Your task to perform on an android device: find which apps use the phone's location Image 0: 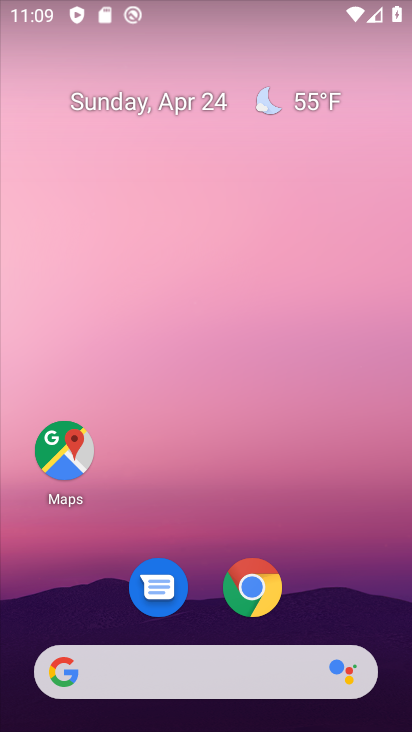
Step 0: drag from (313, 522) to (369, 659)
Your task to perform on an android device: find which apps use the phone's location Image 1: 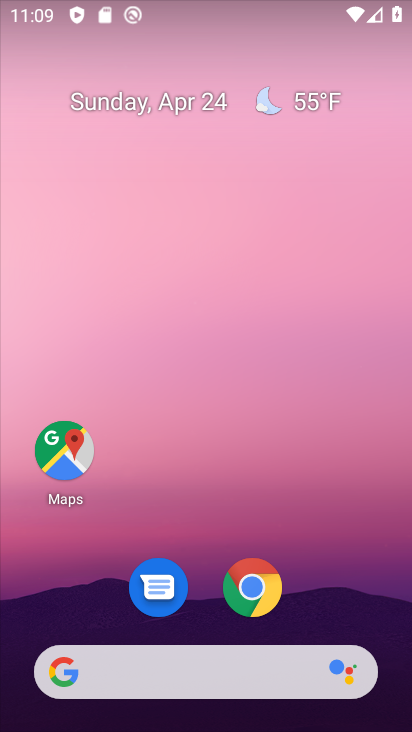
Step 1: drag from (353, 615) to (379, 153)
Your task to perform on an android device: find which apps use the phone's location Image 2: 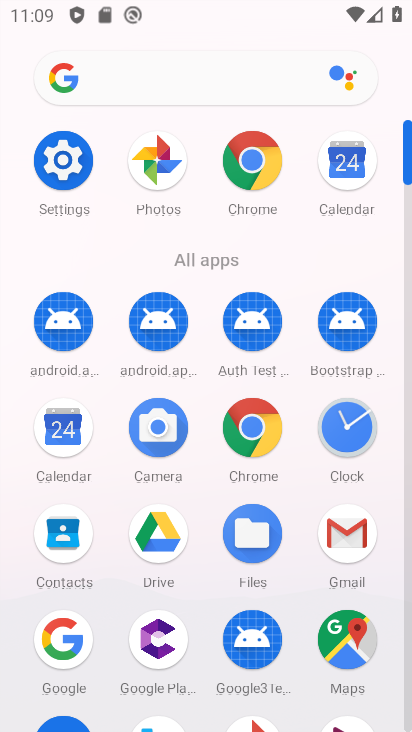
Step 2: click (67, 144)
Your task to perform on an android device: find which apps use the phone's location Image 3: 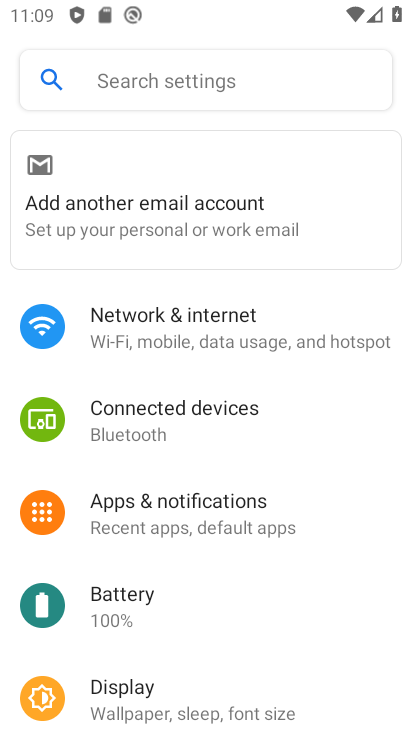
Step 3: drag from (177, 550) to (269, 208)
Your task to perform on an android device: find which apps use the phone's location Image 4: 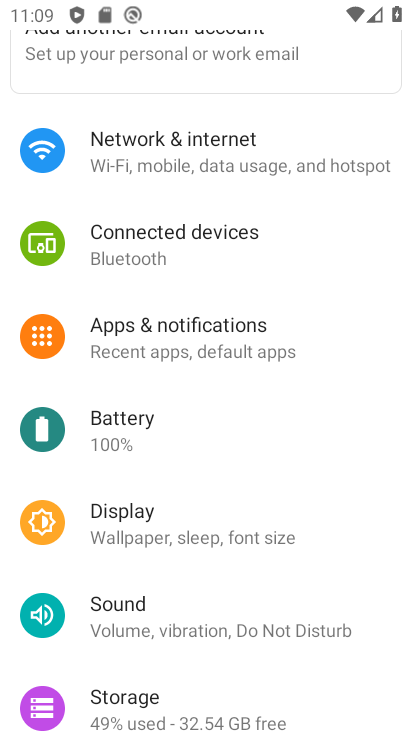
Step 4: drag from (219, 492) to (270, 121)
Your task to perform on an android device: find which apps use the phone's location Image 5: 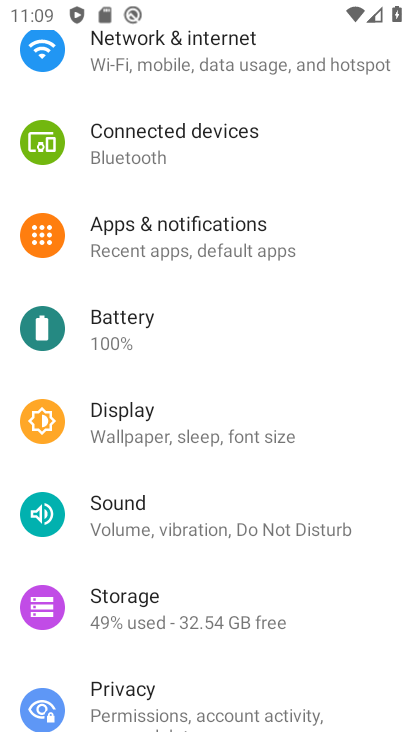
Step 5: drag from (228, 561) to (246, 98)
Your task to perform on an android device: find which apps use the phone's location Image 6: 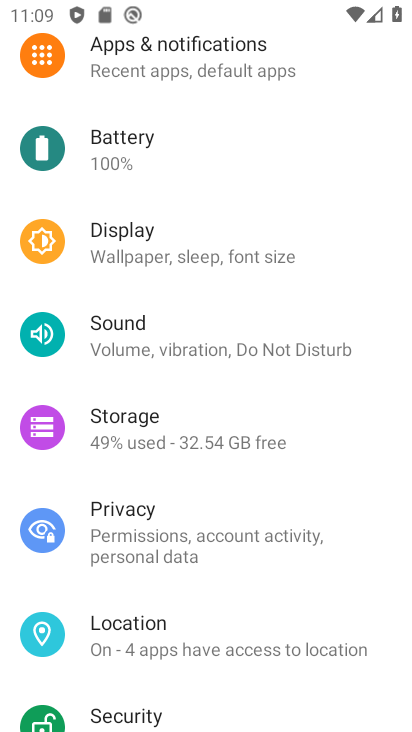
Step 6: drag from (158, 622) to (194, 151)
Your task to perform on an android device: find which apps use the phone's location Image 7: 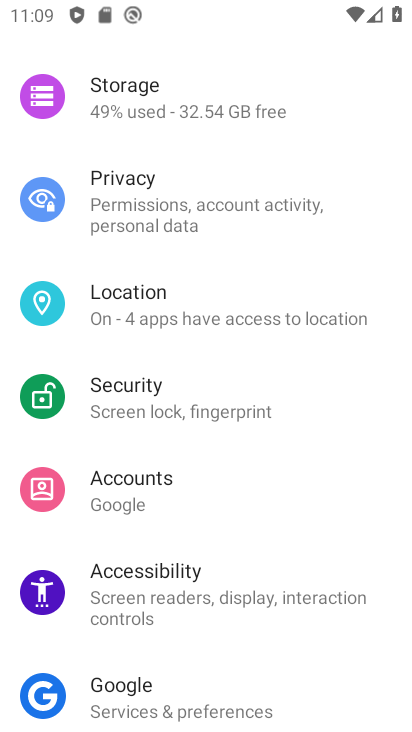
Step 7: click (179, 327)
Your task to perform on an android device: find which apps use the phone's location Image 8: 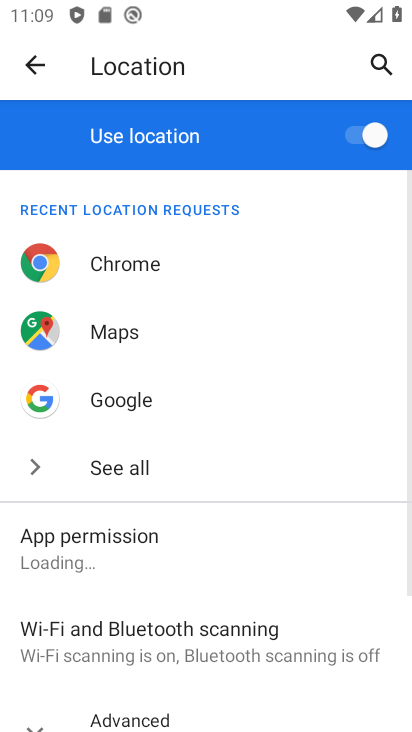
Step 8: drag from (212, 642) to (200, 331)
Your task to perform on an android device: find which apps use the phone's location Image 9: 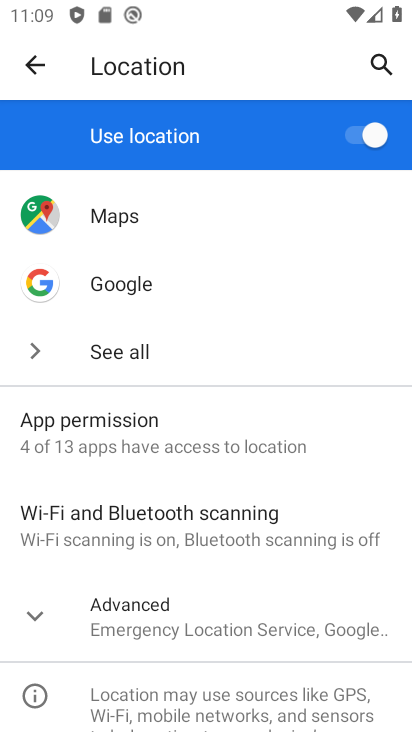
Step 9: drag from (229, 603) to (316, 150)
Your task to perform on an android device: find which apps use the phone's location Image 10: 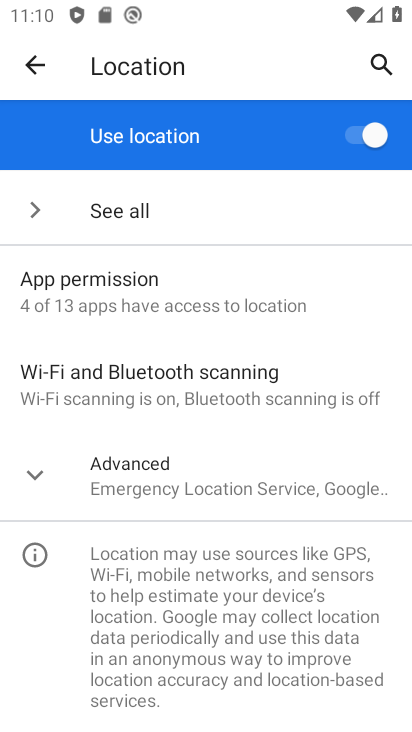
Step 10: click (130, 299)
Your task to perform on an android device: find which apps use the phone's location Image 11: 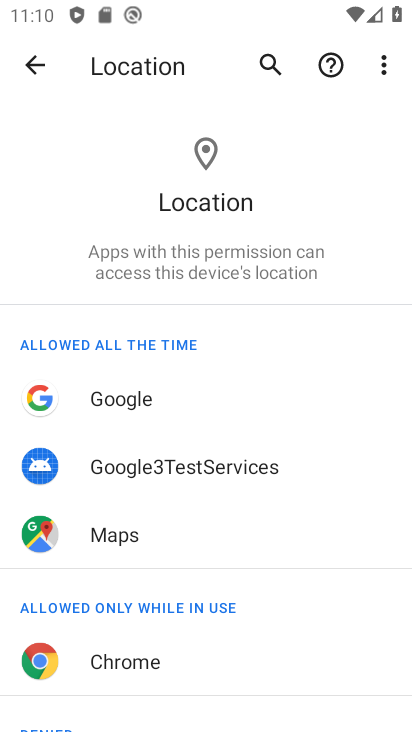
Step 11: drag from (173, 575) to (214, 127)
Your task to perform on an android device: find which apps use the phone's location Image 12: 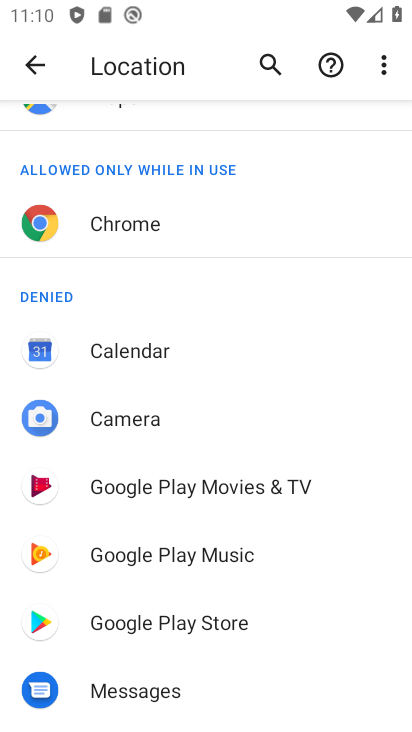
Step 12: drag from (222, 560) to (288, 129)
Your task to perform on an android device: find which apps use the phone's location Image 13: 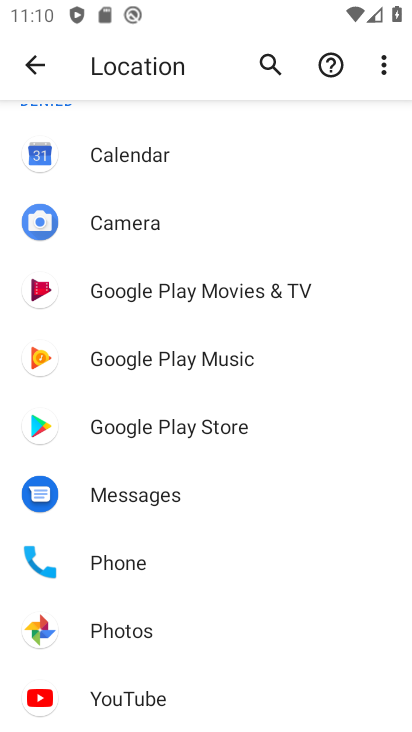
Step 13: drag from (225, 576) to (240, 120)
Your task to perform on an android device: find which apps use the phone's location Image 14: 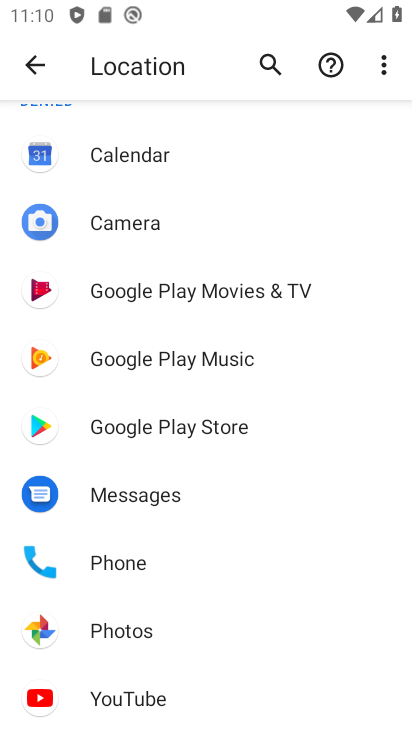
Step 14: drag from (245, 254) to (200, 644)
Your task to perform on an android device: find which apps use the phone's location Image 15: 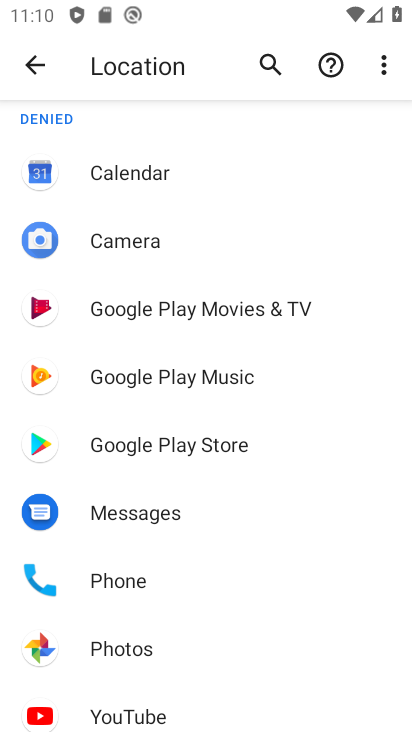
Step 15: drag from (283, 425) to (302, 584)
Your task to perform on an android device: find which apps use the phone's location Image 16: 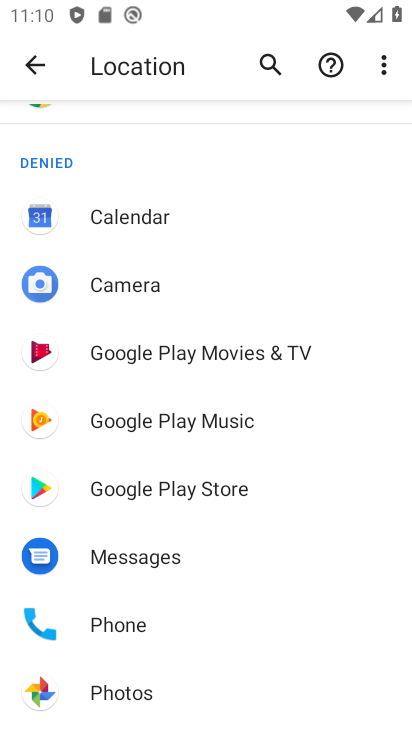
Step 16: drag from (271, 370) to (298, 642)
Your task to perform on an android device: find which apps use the phone's location Image 17: 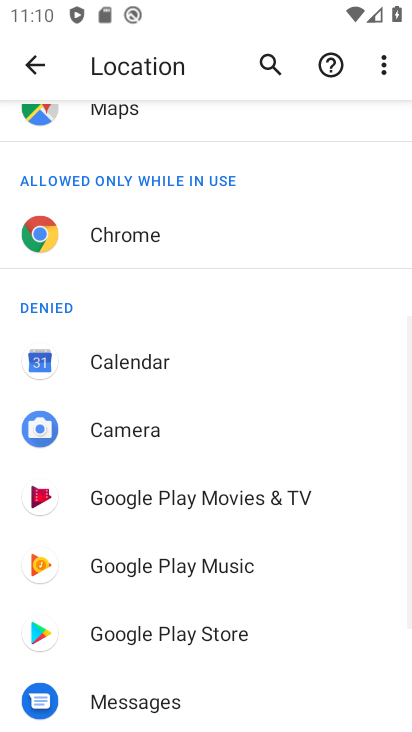
Step 17: drag from (280, 253) to (312, 625)
Your task to perform on an android device: find which apps use the phone's location Image 18: 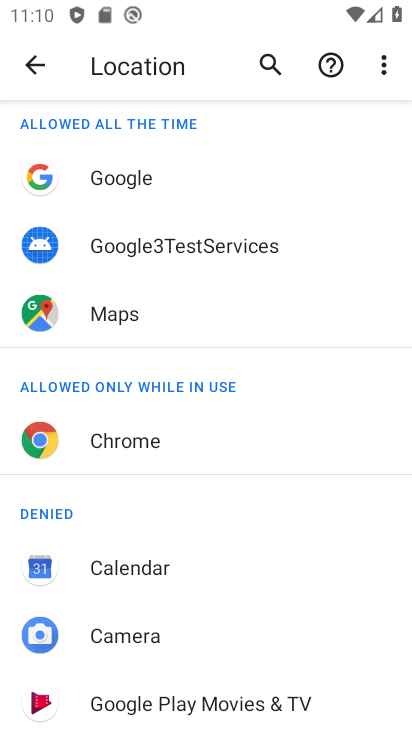
Step 18: drag from (359, 231) to (335, 672)
Your task to perform on an android device: find which apps use the phone's location Image 19: 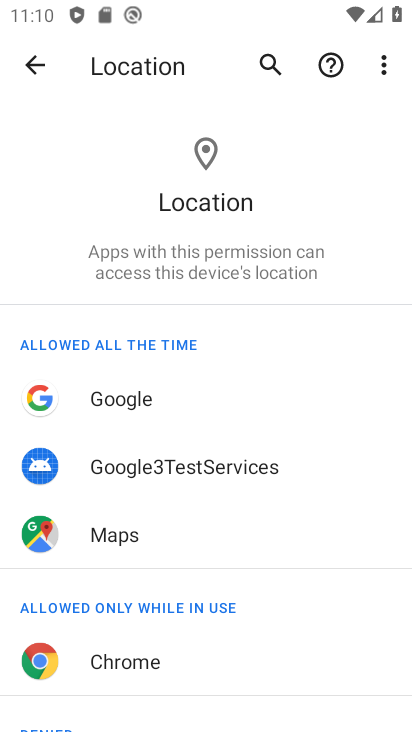
Step 19: drag from (301, 349) to (300, 731)
Your task to perform on an android device: find which apps use the phone's location Image 20: 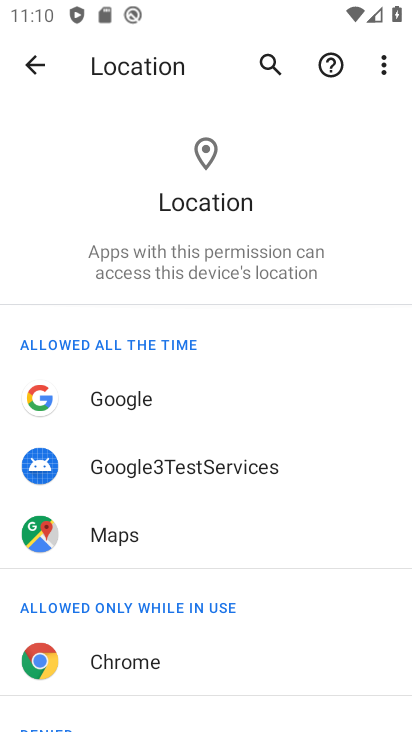
Step 20: click (374, 230)
Your task to perform on an android device: find which apps use the phone's location Image 21: 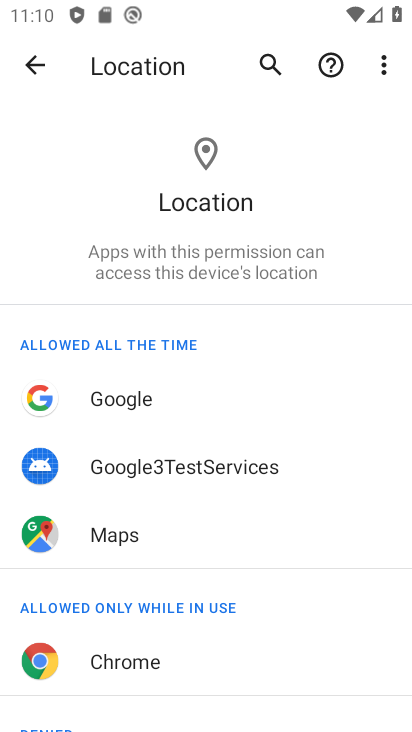
Step 21: task complete